Your task to perform on an android device: check battery use Image 0: 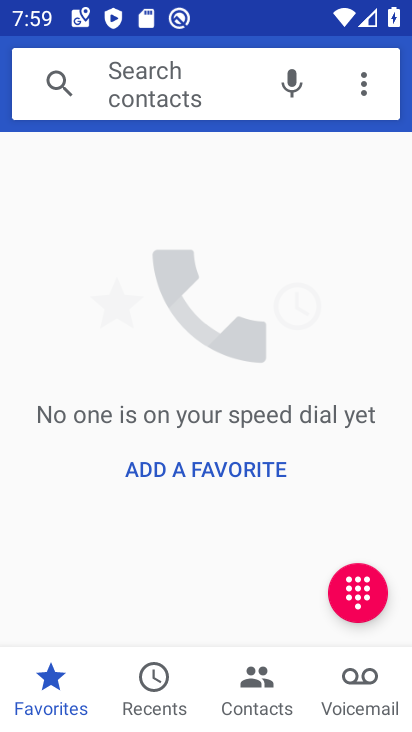
Step 0: press home button
Your task to perform on an android device: check battery use Image 1: 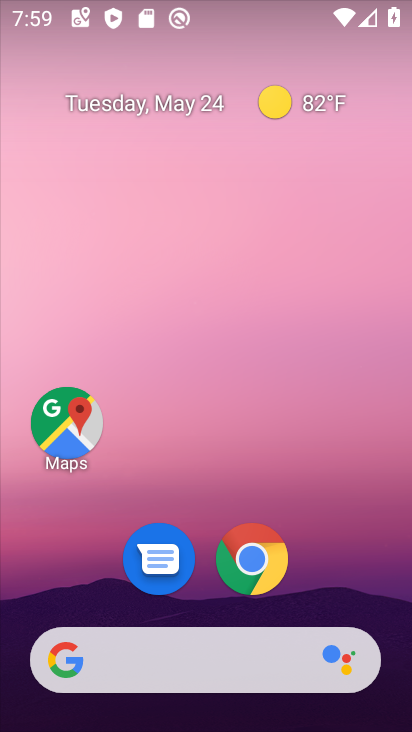
Step 1: drag from (378, 597) to (332, 173)
Your task to perform on an android device: check battery use Image 2: 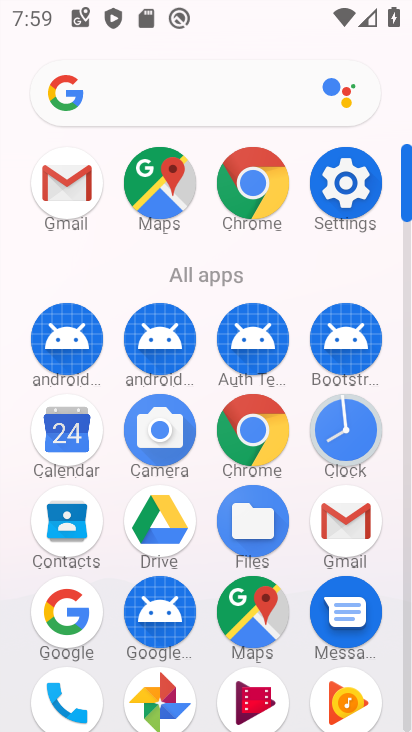
Step 2: click (349, 210)
Your task to perform on an android device: check battery use Image 3: 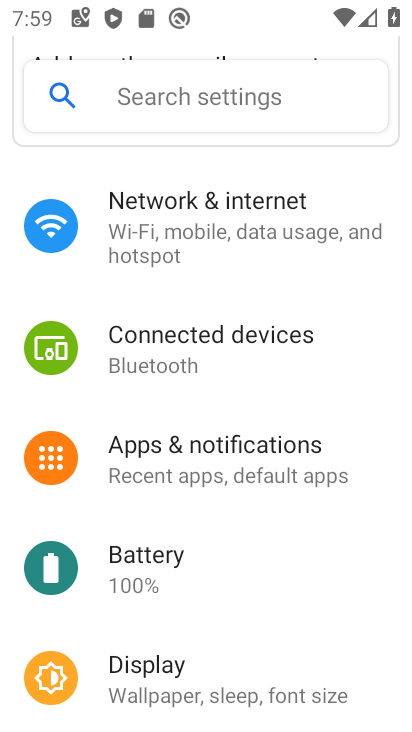
Step 3: drag from (334, 583) to (348, 420)
Your task to perform on an android device: check battery use Image 4: 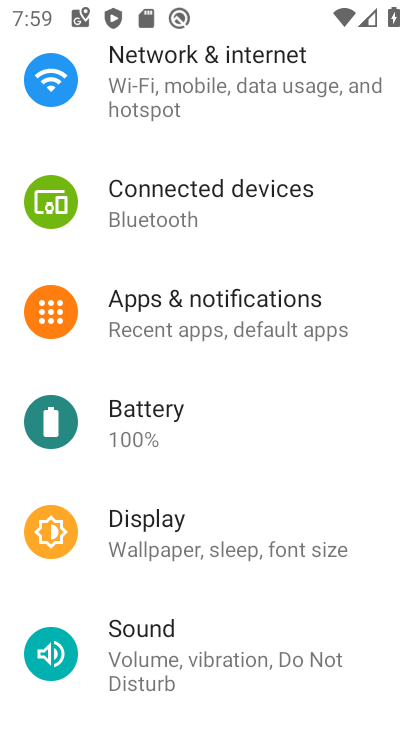
Step 4: drag from (357, 600) to (377, 448)
Your task to perform on an android device: check battery use Image 5: 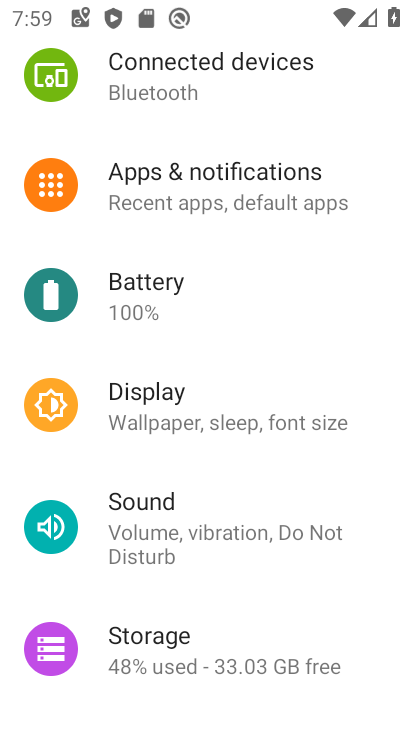
Step 5: drag from (357, 590) to (382, 404)
Your task to perform on an android device: check battery use Image 6: 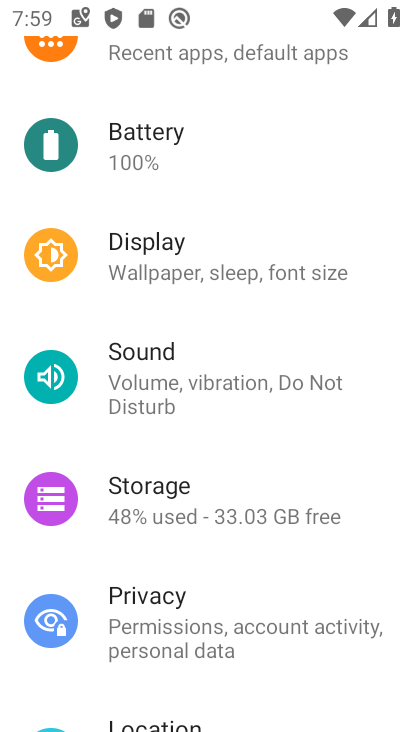
Step 6: drag from (375, 597) to (378, 422)
Your task to perform on an android device: check battery use Image 7: 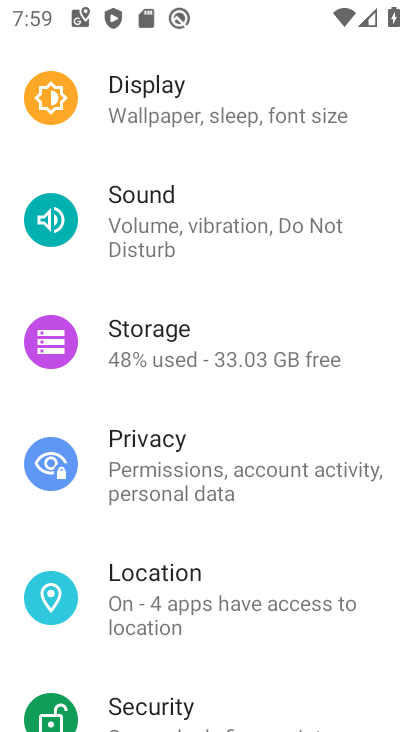
Step 7: drag from (364, 634) to (368, 405)
Your task to perform on an android device: check battery use Image 8: 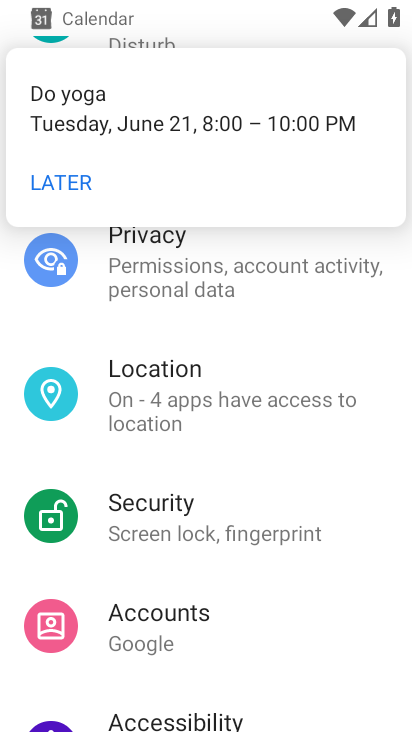
Step 8: drag from (343, 599) to (335, 398)
Your task to perform on an android device: check battery use Image 9: 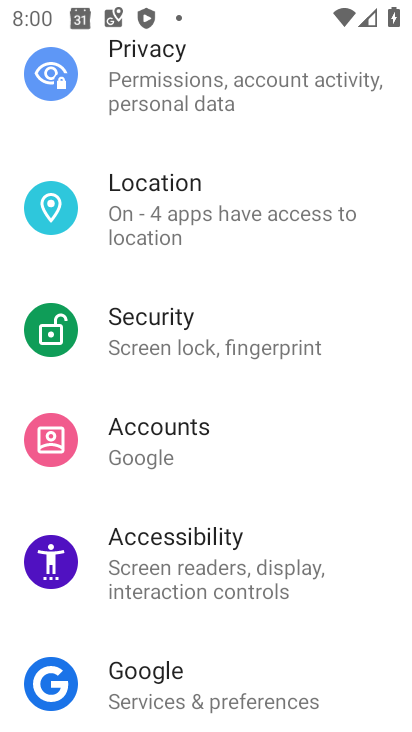
Step 9: drag from (344, 617) to (356, 480)
Your task to perform on an android device: check battery use Image 10: 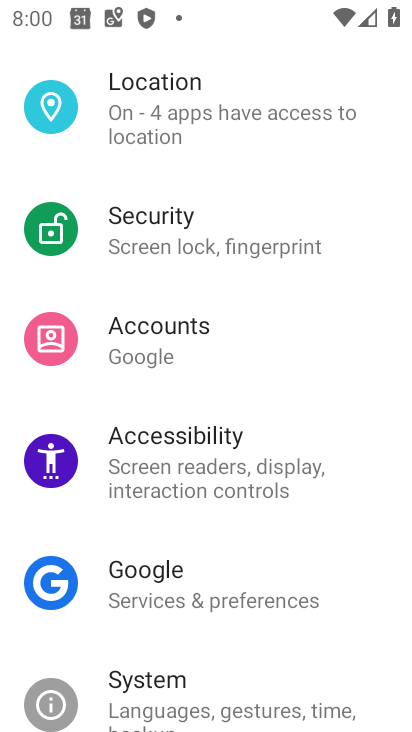
Step 10: drag from (328, 331) to (335, 448)
Your task to perform on an android device: check battery use Image 11: 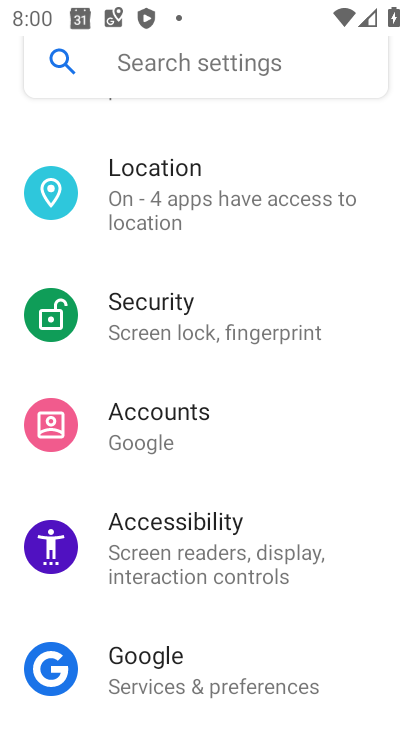
Step 11: drag from (352, 277) to (343, 461)
Your task to perform on an android device: check battery use Image 12: 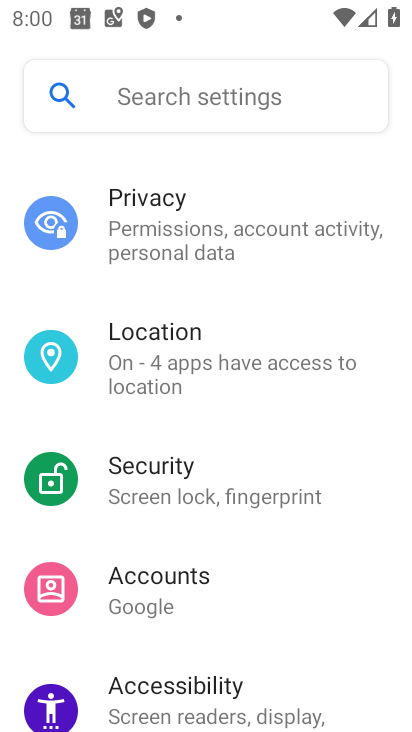
Step 12: drag from (376, 299) to (367, 504)
Your task to perform on an android device: check battery use Image 13: 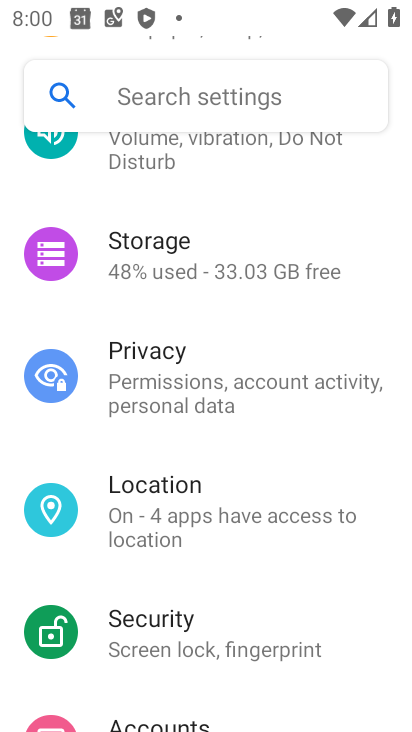
Step 13: drag from (372, 266) to (366, 451)
Your task to perform on an android device: check battery use Image 14: 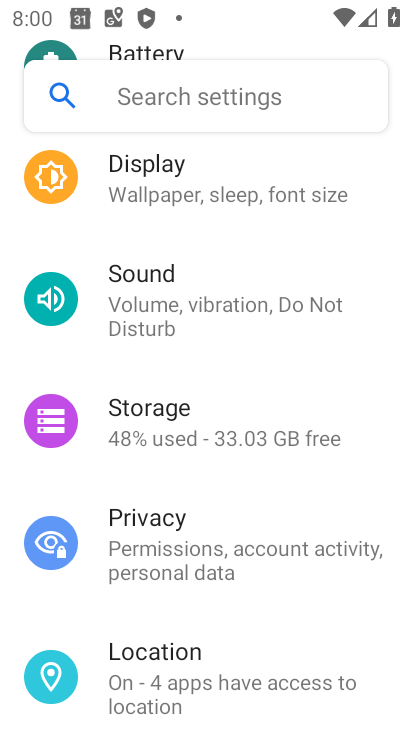
Step 14: drag from (353, 247) to (349, 429)
Your task to perform on an android device: check battery use Image 15: 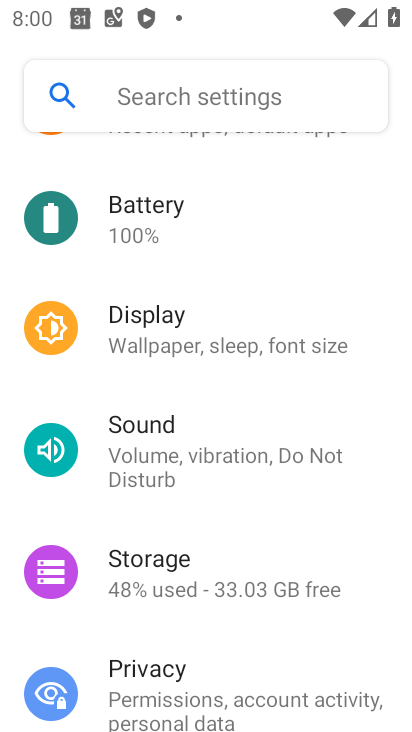
Step 15: drag from (346, 216) to (357, 386)
Your task to perform on an android device: check battery use Image 16: 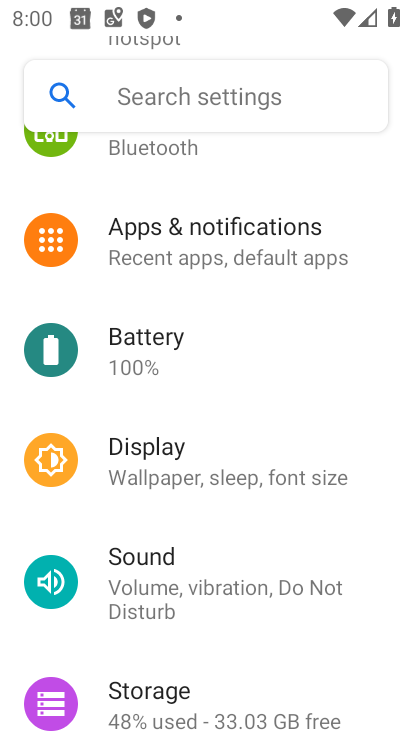
Step 16: click (147, 359)
Your task to perform on an android device: check battery use Image 17: 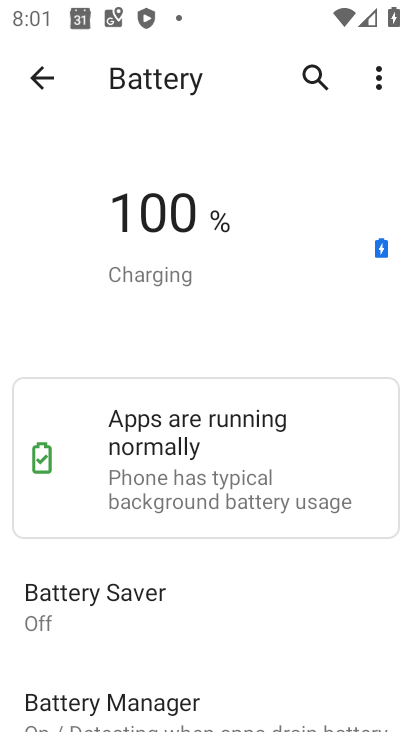
Step 17: click (382, 83)
Your task to perform on an android device: check battery use Image 18: 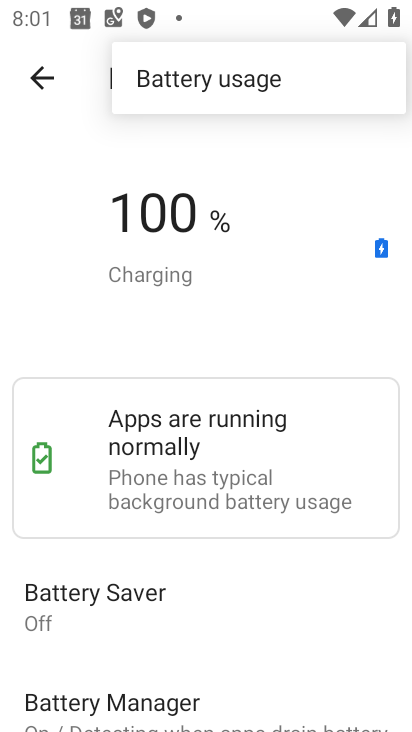
Step 18: click (308, 84)
Your task to perform on an android device: check battery use Image 19: 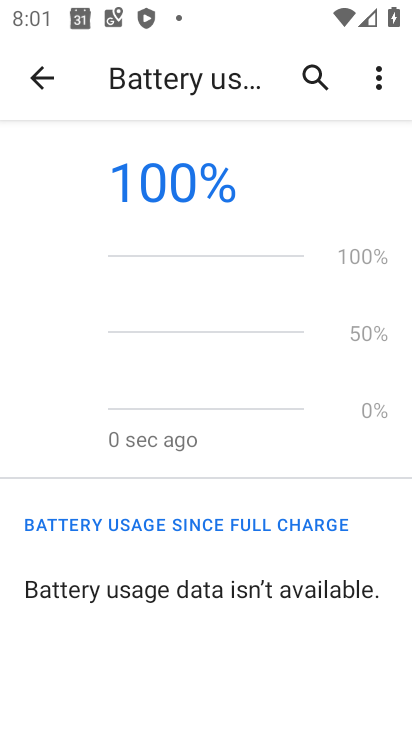
Step 19: task complete